Your task to perform on an android device: Open Chrome and go to the settings page Image 0: 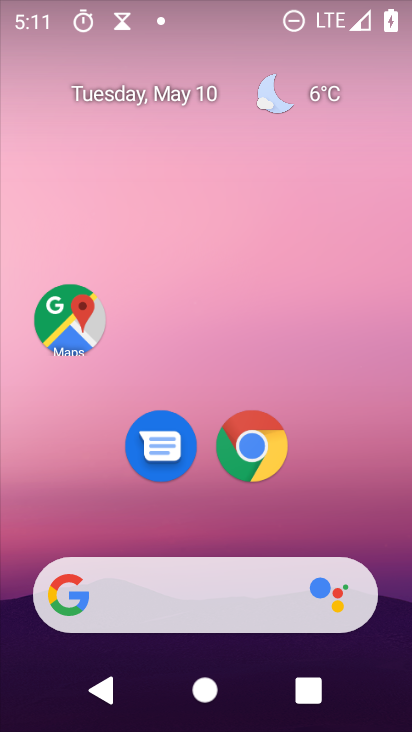
Step 0: click (264, 436)
Your task to perform on an android device: Open Chrome and go to the settings page Image 1: 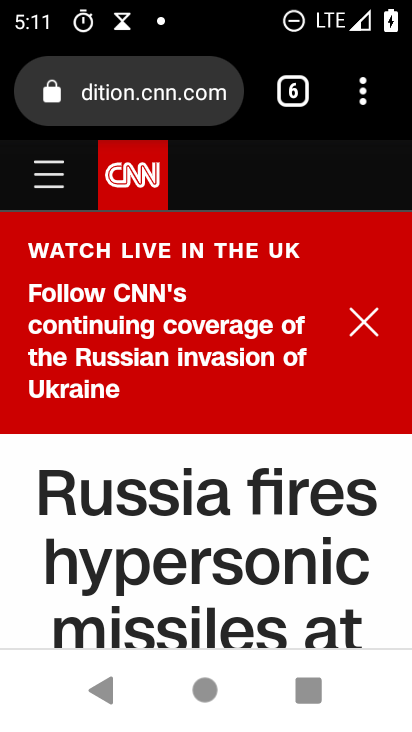
Step 1: click (368, 96)
Your task to perform on an android device: Open Chrome and go to the settings page Image 2: 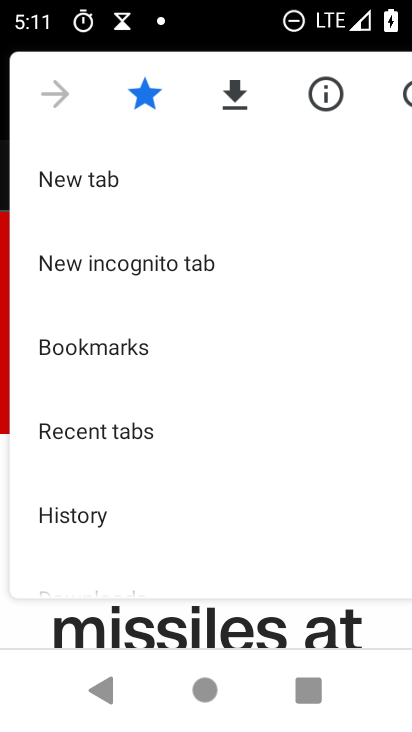
Step 2: drag from (170, 493) to (163, 240)
Your task to perform on an android device: Open Chrome and go to the settings page Image 3: 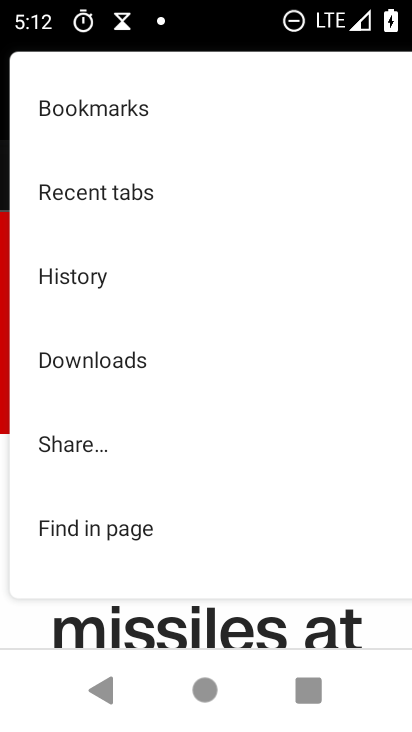
Step 3: drag from (141, 499) to (148, 245)
Your task to perform on an android device: Open Chrome and go to the settings page Image 4: 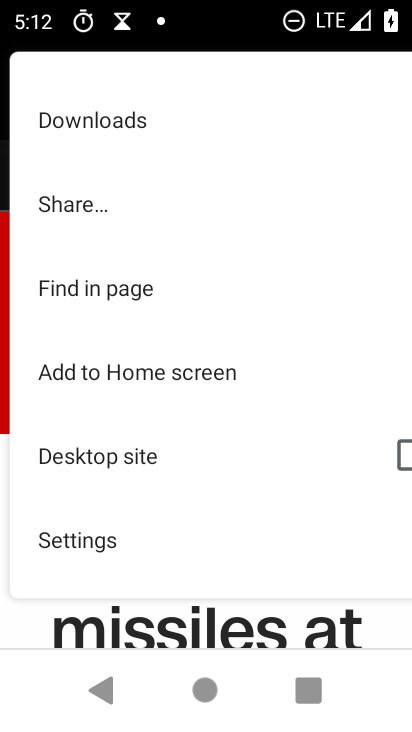
Step 4: click (86, 530)
Your task to perform on an android device: Open Chrome and go to the settings page Image 5: 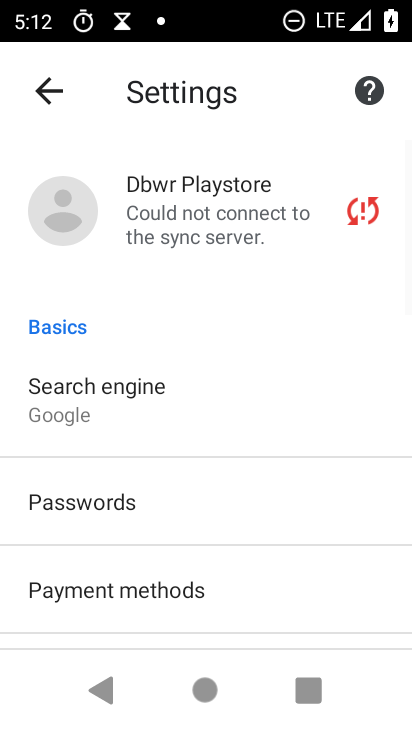
Step 5: task complete